Your task to perform on an android device: Add energizer triple a to the cart on newegg Image 0: 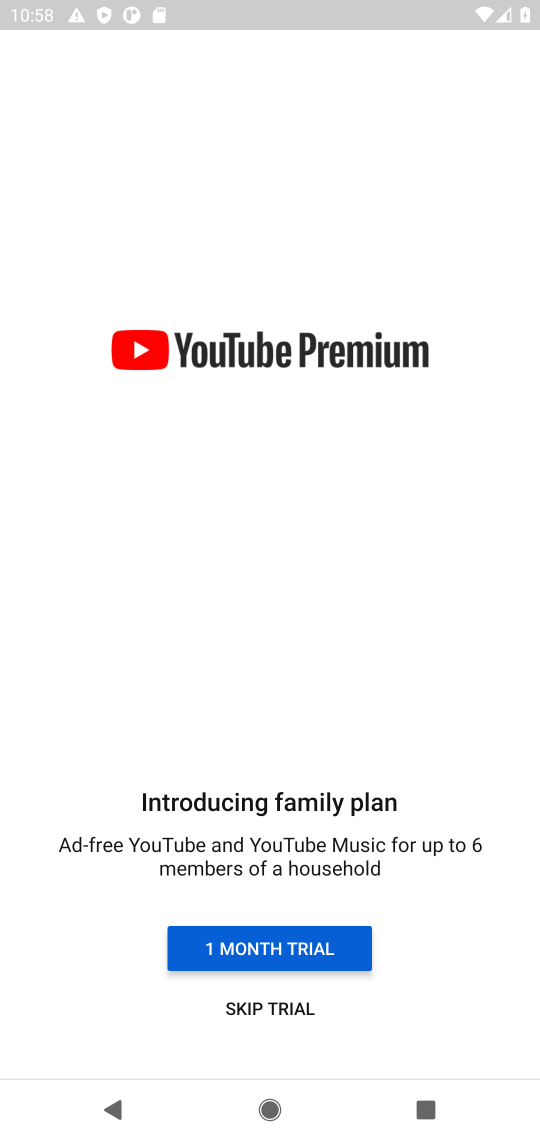
Step 0: press home button
Your task to perform on an android device: Add energizer triple a to the cart on newegg Image 1: 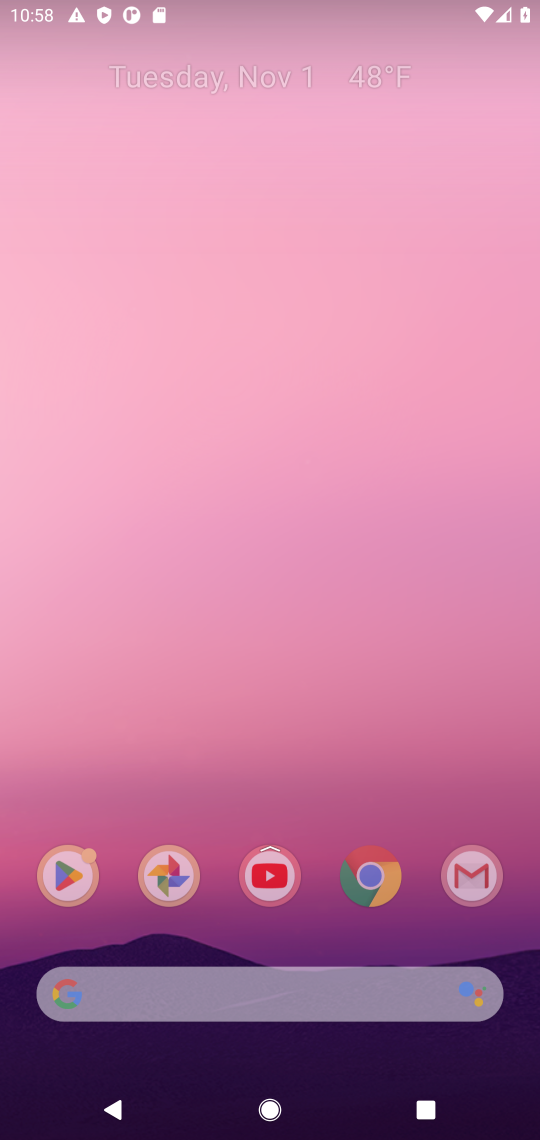
Step 1: press home button
Your task to perform on an android device: Add energizer triple a to the cart on newegg Image 2: 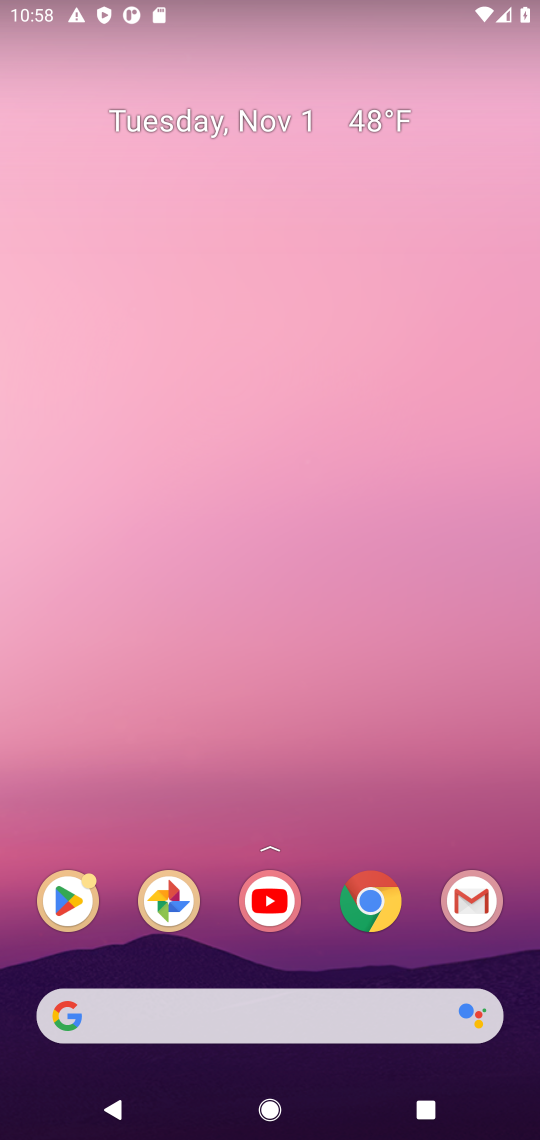
Step 2: drag from (313, 949) to (314, 126)
Your task to perform on an android device: Add energizer triple a to the cart on newegg Image 3: 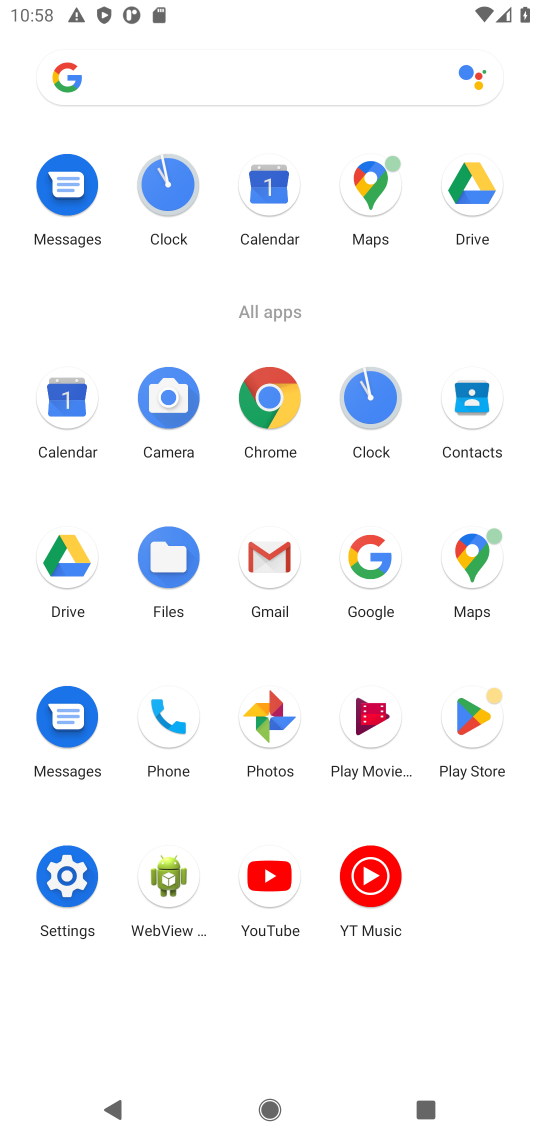
Step 3: click (266, 399)
Your task to perform on an android device: Add energizer triple a to the cart on newegg Image 4: 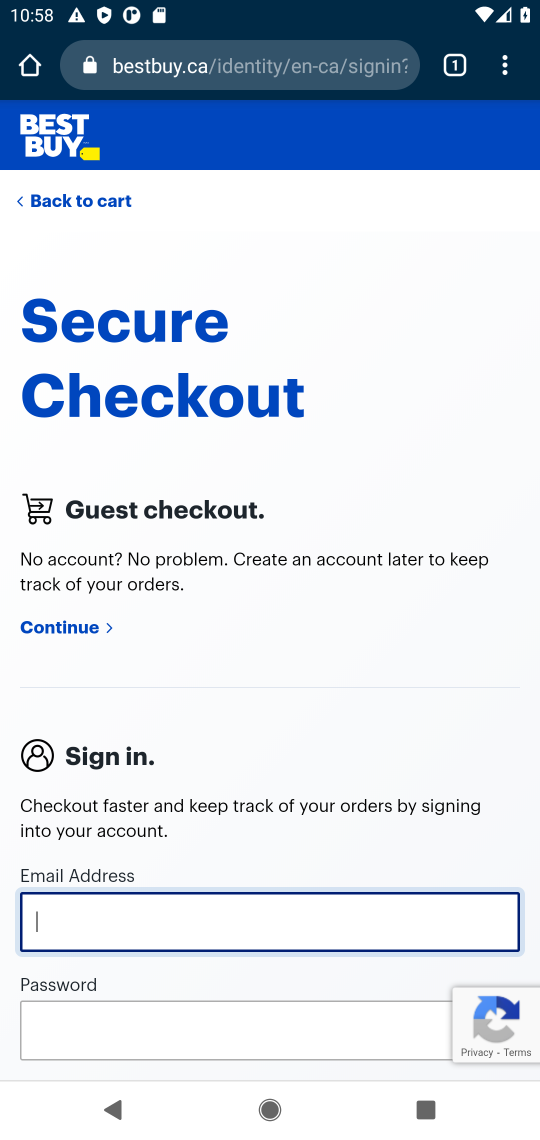
Step 4: click (237, 67)
Your task to perform on an android device: Add energizer triple a to the cart on newegg Image 5: 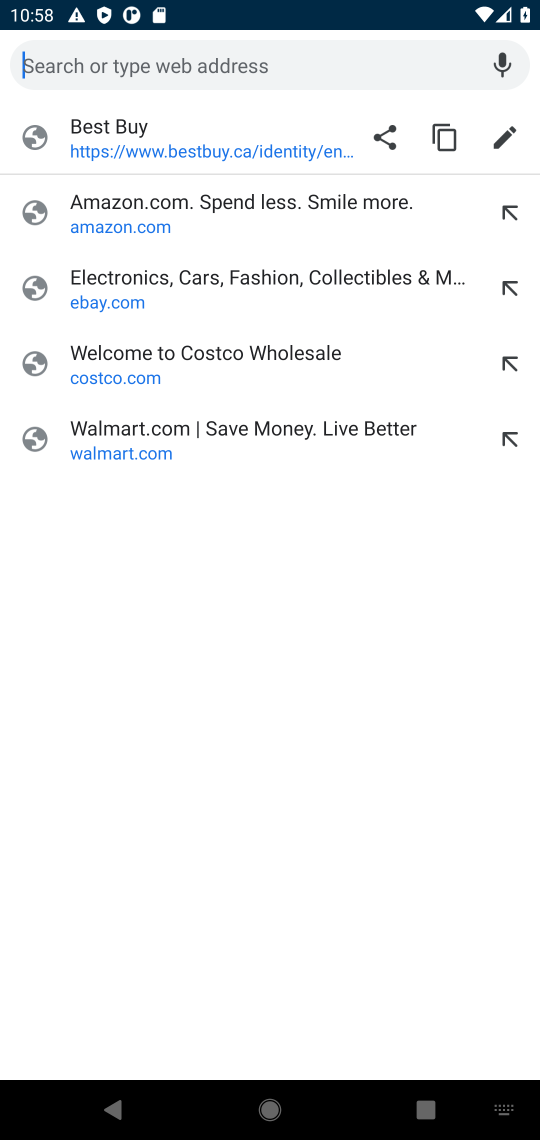
Step 5: type "newegg.com"
Your task to perform on an android device: Add energizer triple a to the cart on newegg Image 6: 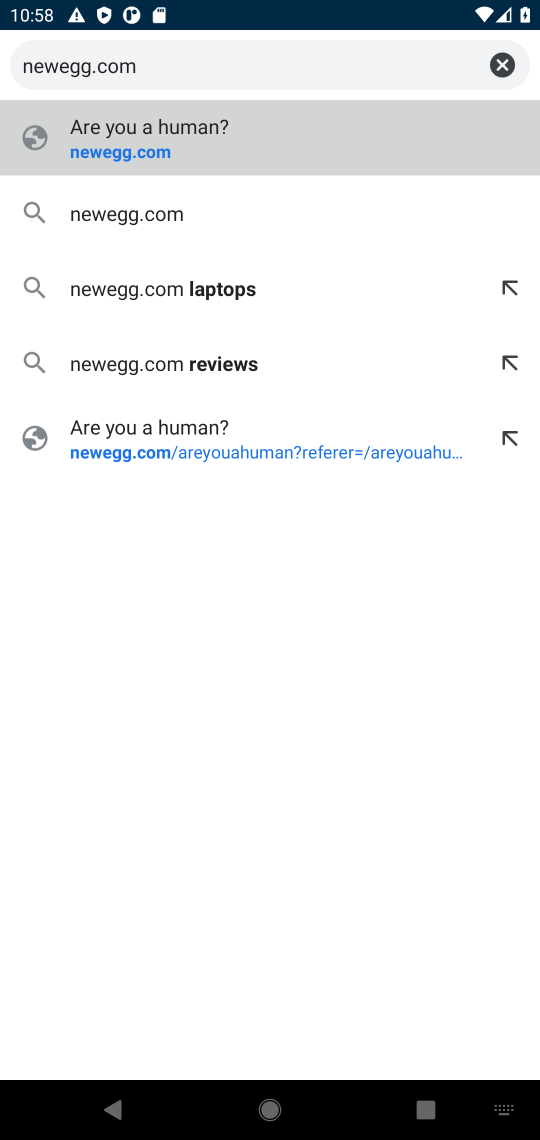
Step 6: press enter
Your task to perform on an android device: Add energizer triple a to the cart on newegg Image 7: 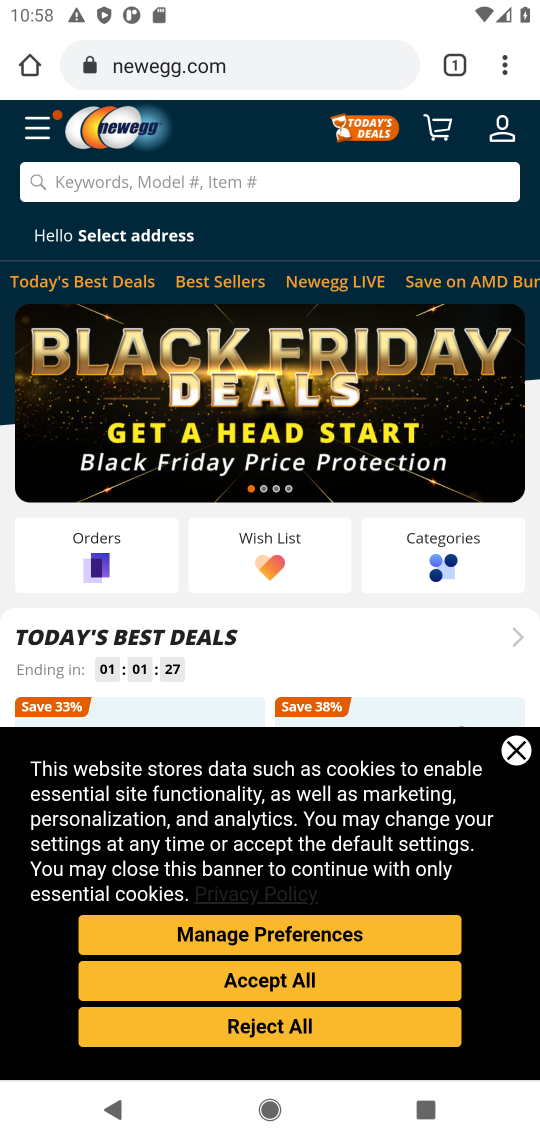
Step 7: click (183, 190)
Your task to perform on an android device: Add energizer triple a to the cart on newegg Image 8: 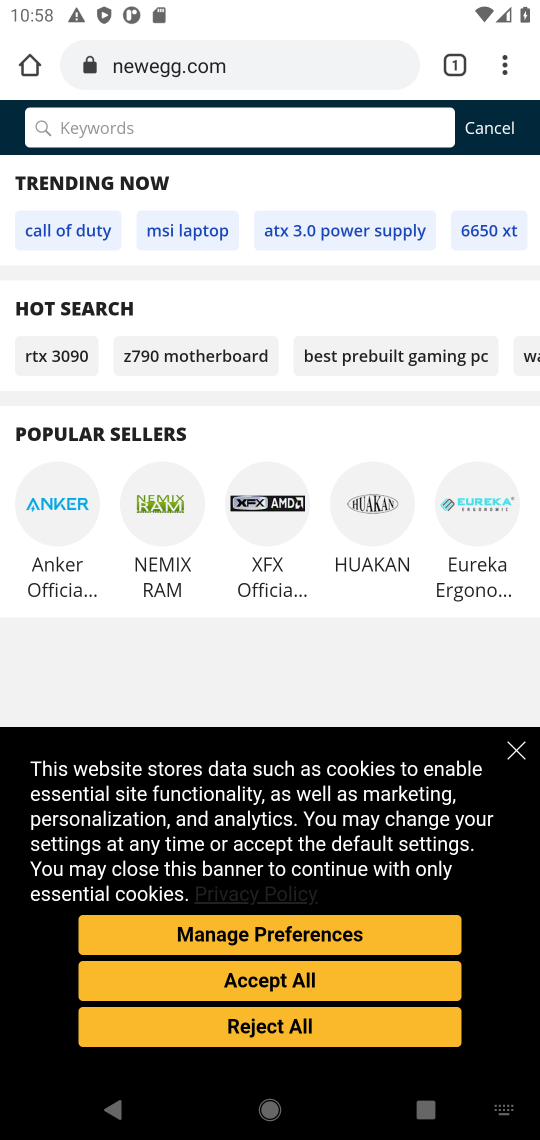
Step 8: type "enegizer triple a"
Your task to perform on an android device: Add energizer triple a to the cart on newegg Image 9: 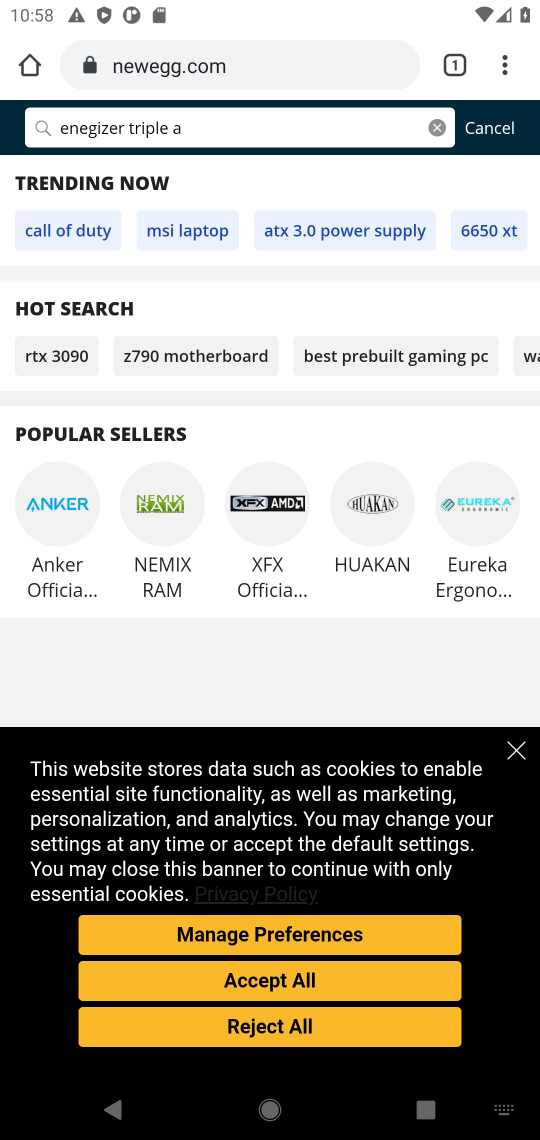
Step 9: press enter
Your task to perform on an android device: Add energizer triple a to the cart on newegg Image 10: 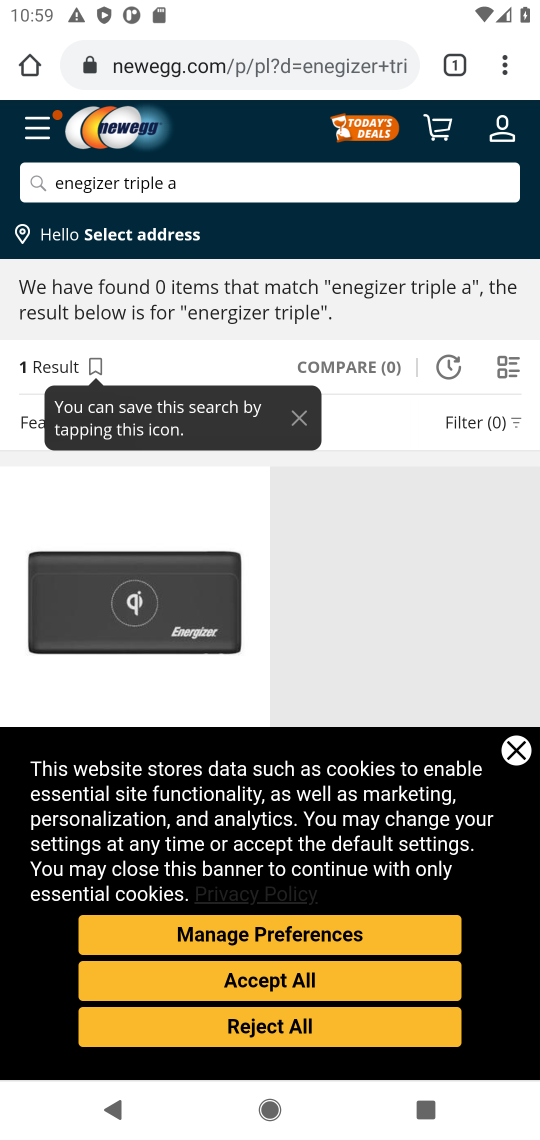
Step 10: click (515, 760)
Your task to perform on an android device: Add energizer triple a to the cart on newegg Image 11: 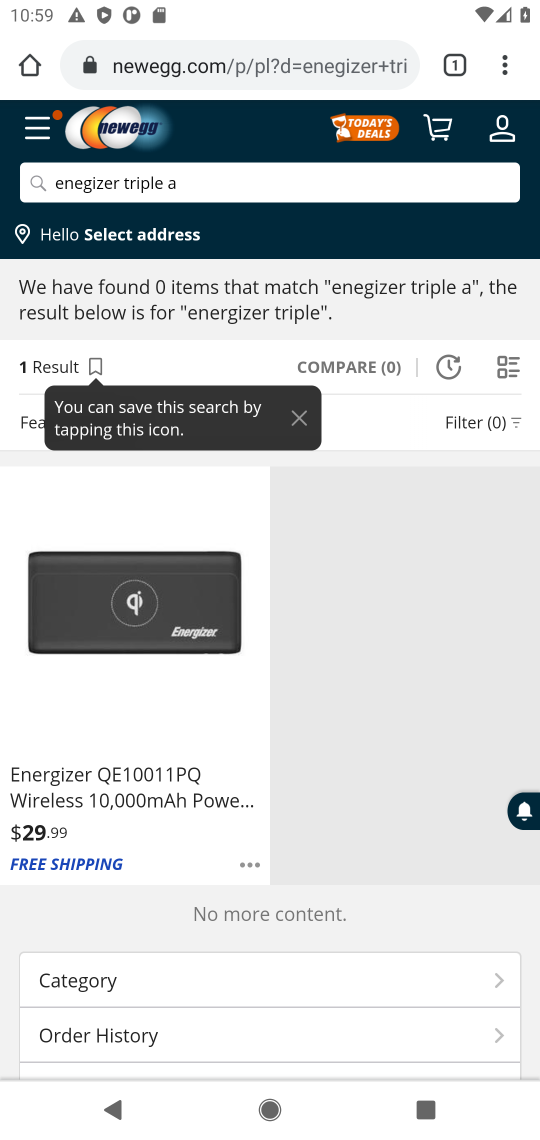
Step 11: task complete